Your task to perform on an android device: turn on location history Image 0: 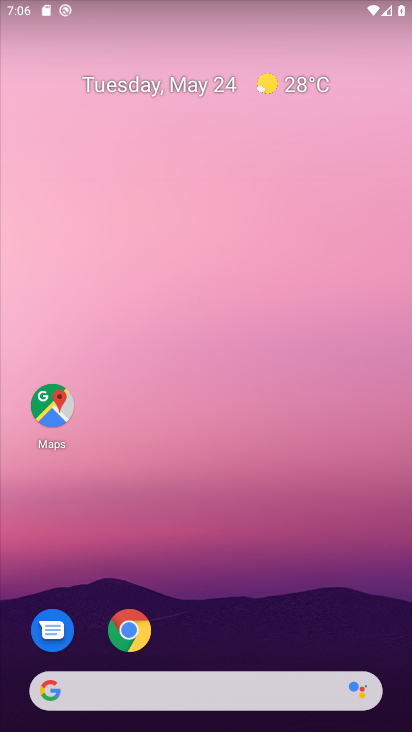
Step 0: drag from (282, 705) to (215, 100)
Your task to perform on an android device: turn on location history Image 1: 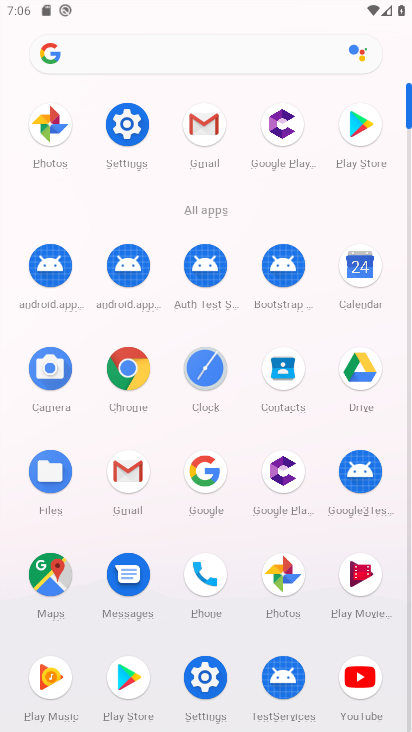
Step 1: click (127, 145)
Your task to perform on an android device: turn on location history Image 2: 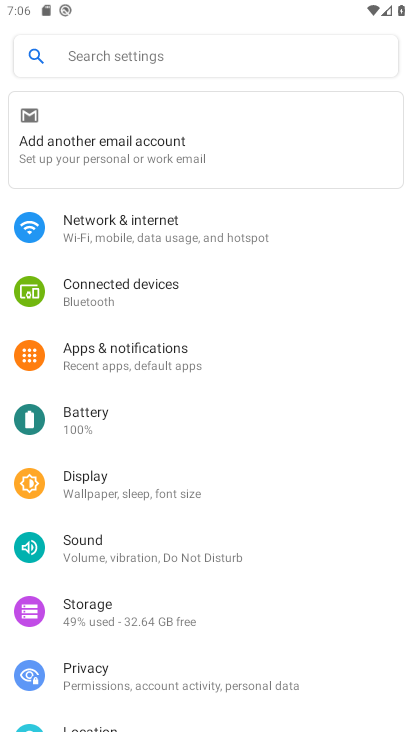
Step 2: click (137, 55)
Your task to perform on an android device: turn on location history Image 3: 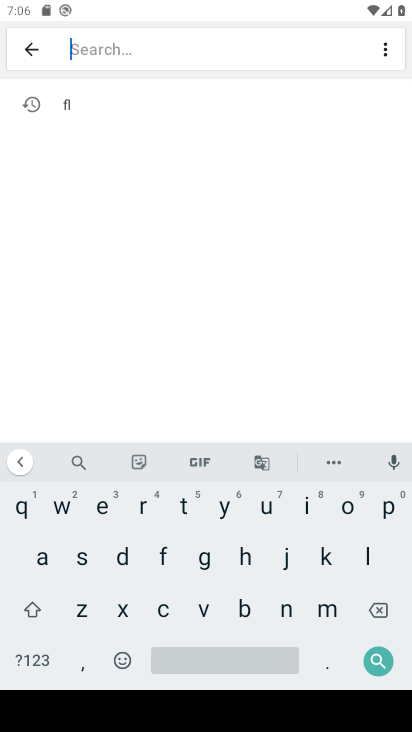
Step 3: click (366, 551)
Your task to perform on an android device: turn on location history Image 4: 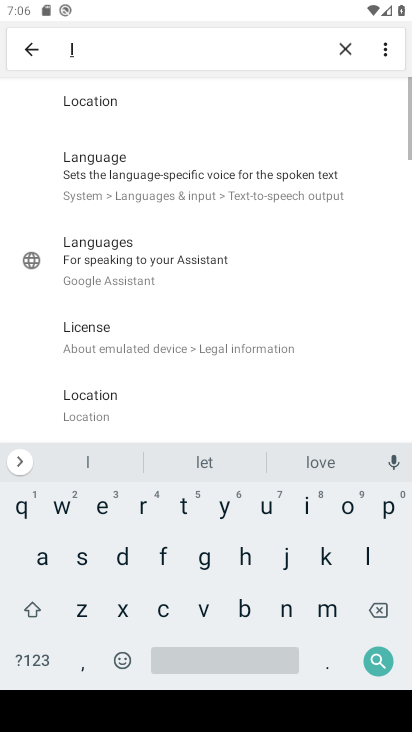
Step 4: click (346, 500)
Your task to perform on an android device: turn on location history Image 5: 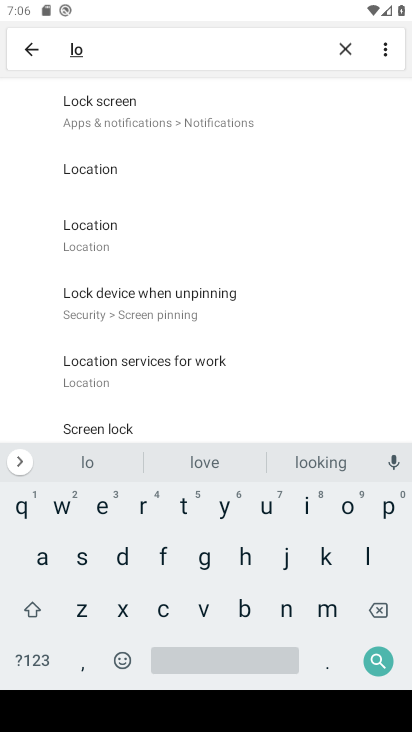
Step 5: click (109, 220)
Your task to perform on an android device: turn on location history Image 6: 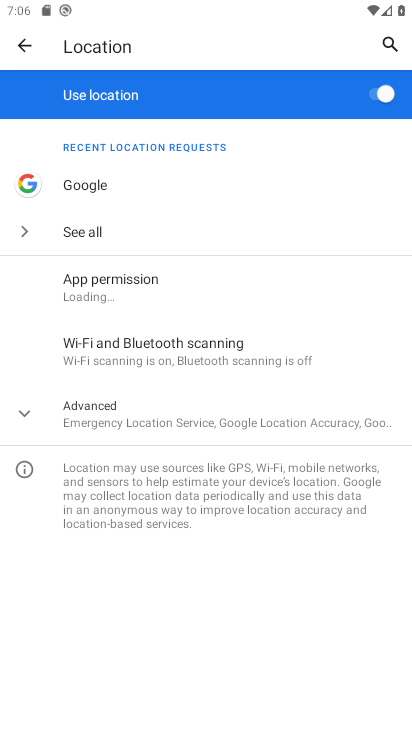
Step 6: click (38, 393)
Your task to perform on an android device: turn on location history Image 7: 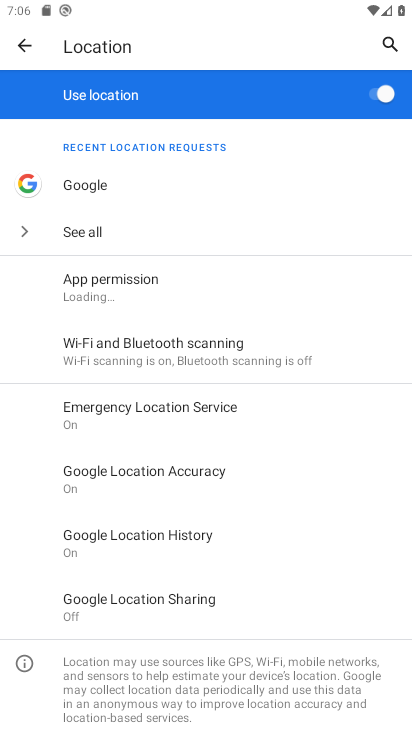
Step 7: click (186, 535)
Your task to perform on an android device: turn on location history Image 8: 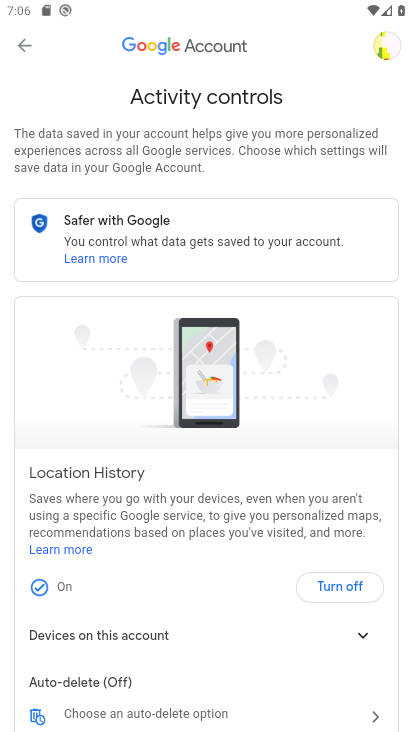
Step 8: drag from (265, 555) to (231, 378)
Your task to perform on an android device: turn on location history Image 9: 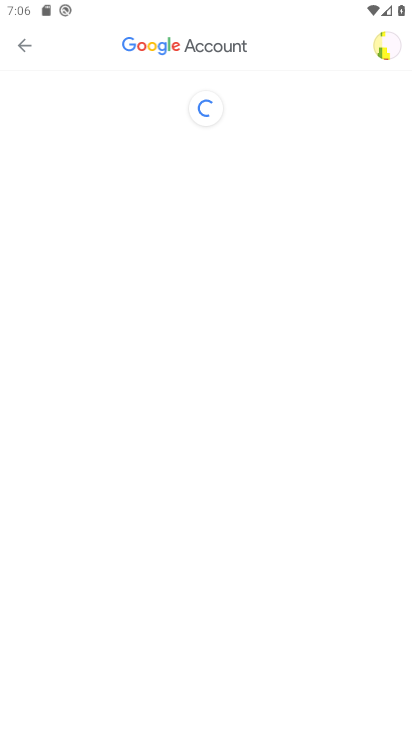
Step 9: click (54, 421)
Your task to perform on an android device: turn on location history Image 10: 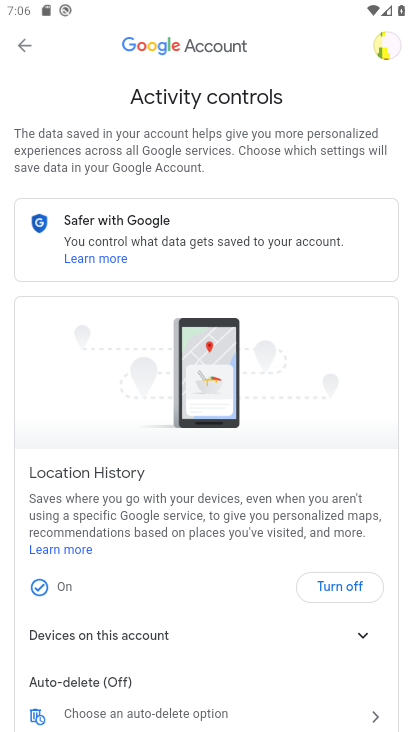
Step 10: task complete